Your task to perform on an android device: turn off javascript in the chrome app Image 0: 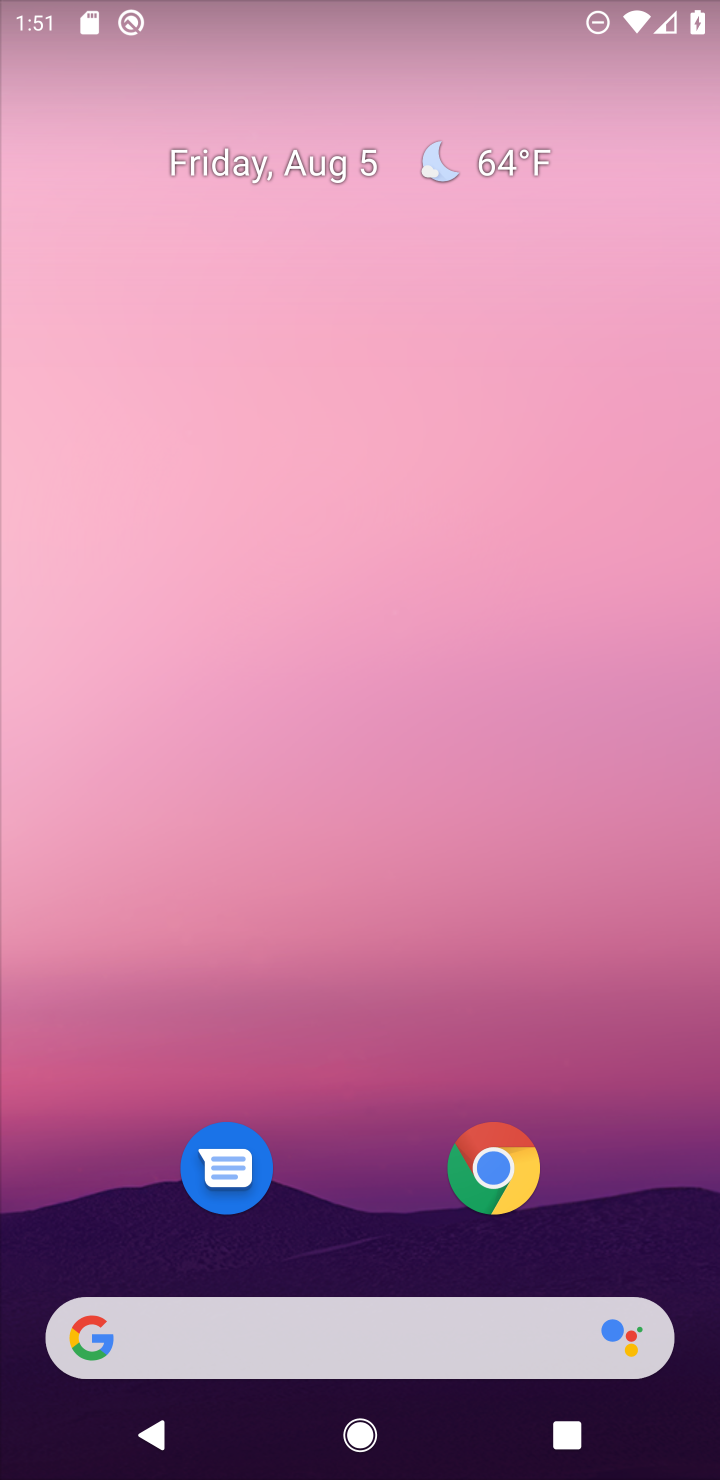
Step 0: drag from (604, 824) to (380, 2)
Your task to perform on an android device: turn off javascript in the chrome app Image 1: 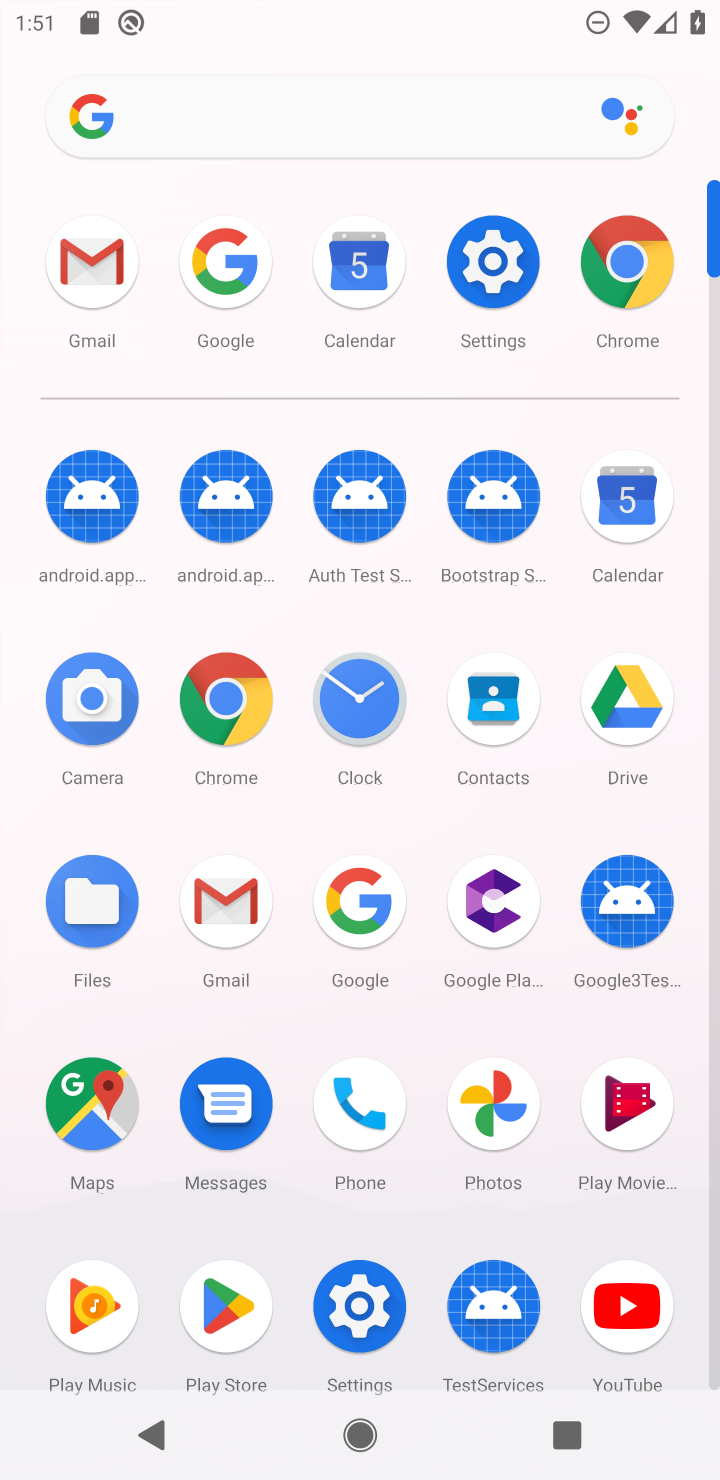
Step 1: click (621, 281)
Your task to perform on an android device: turn off javascript in the chrome app Image 2: 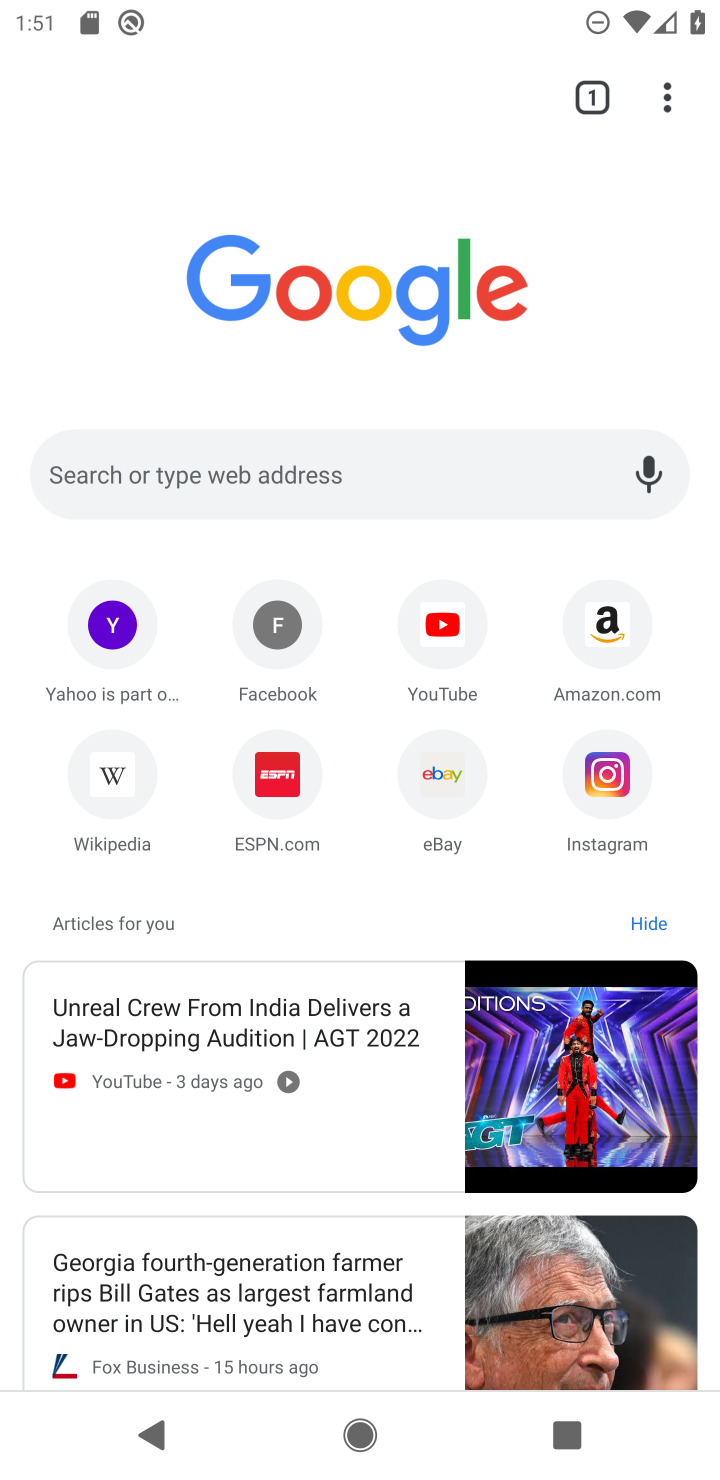
Step 2: click (334, 818)
Your task to perform on an android device: turn off javascript in the chrome app Image 3: 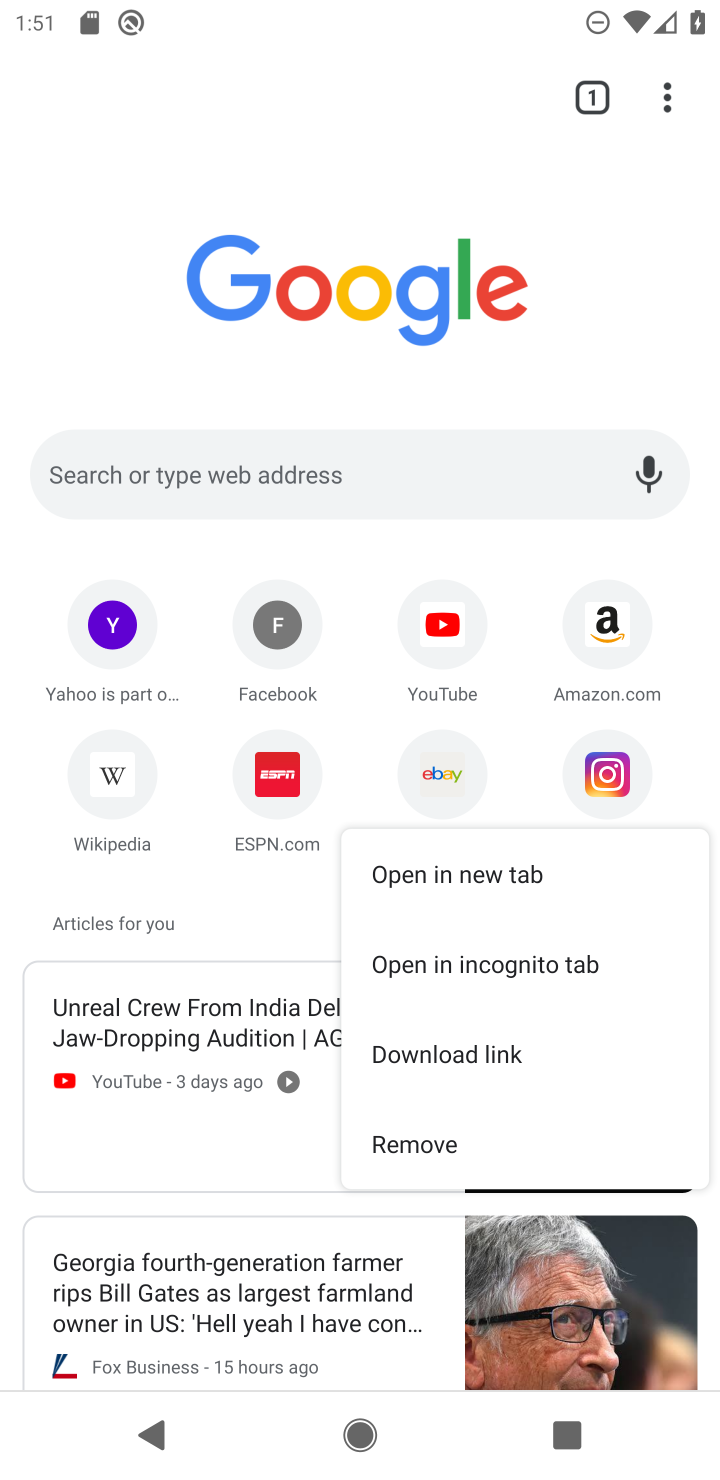
Step 3: click (653, 195)
Your task to perform on an android device: turn off javascript in the chrome app Image 4: 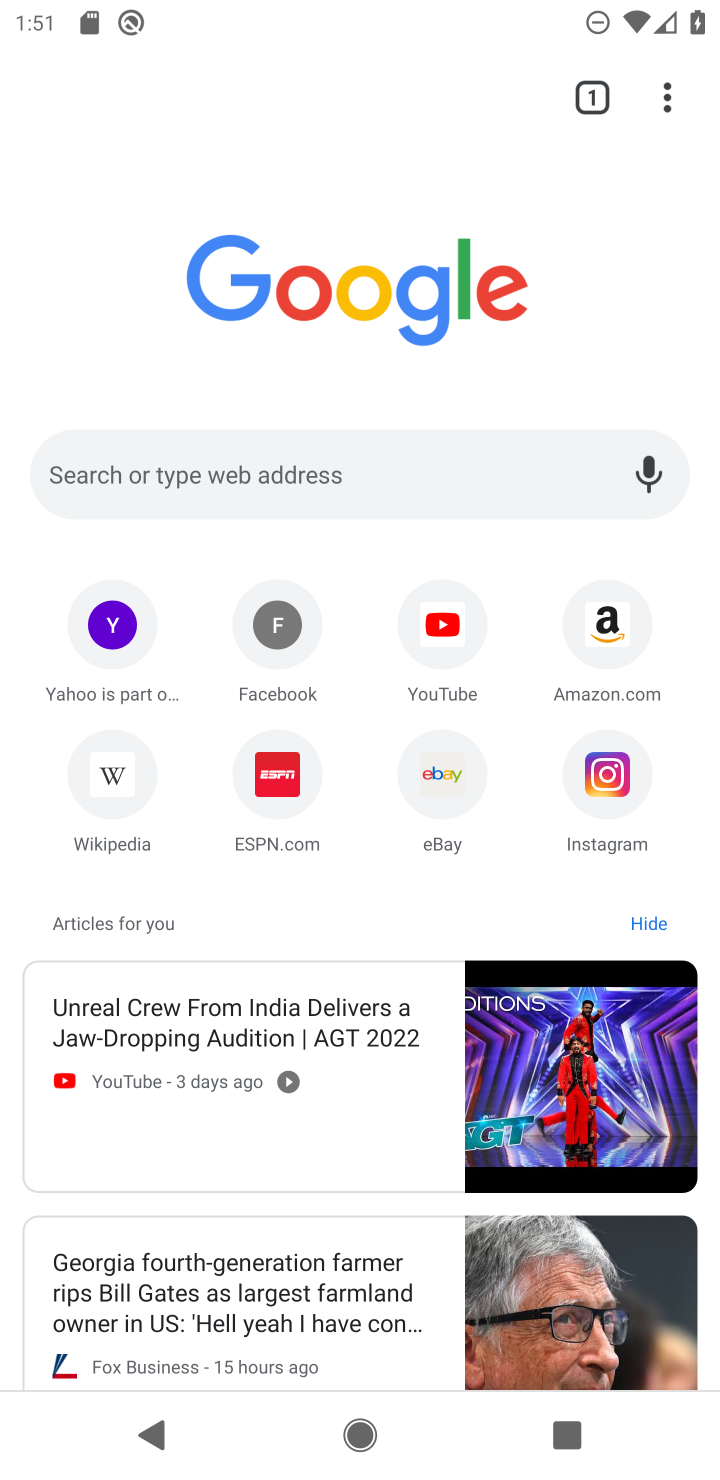
Step 4: click (672, 85)
Your task to perform on an android device: turn off javascript in the chrome app Image 5: 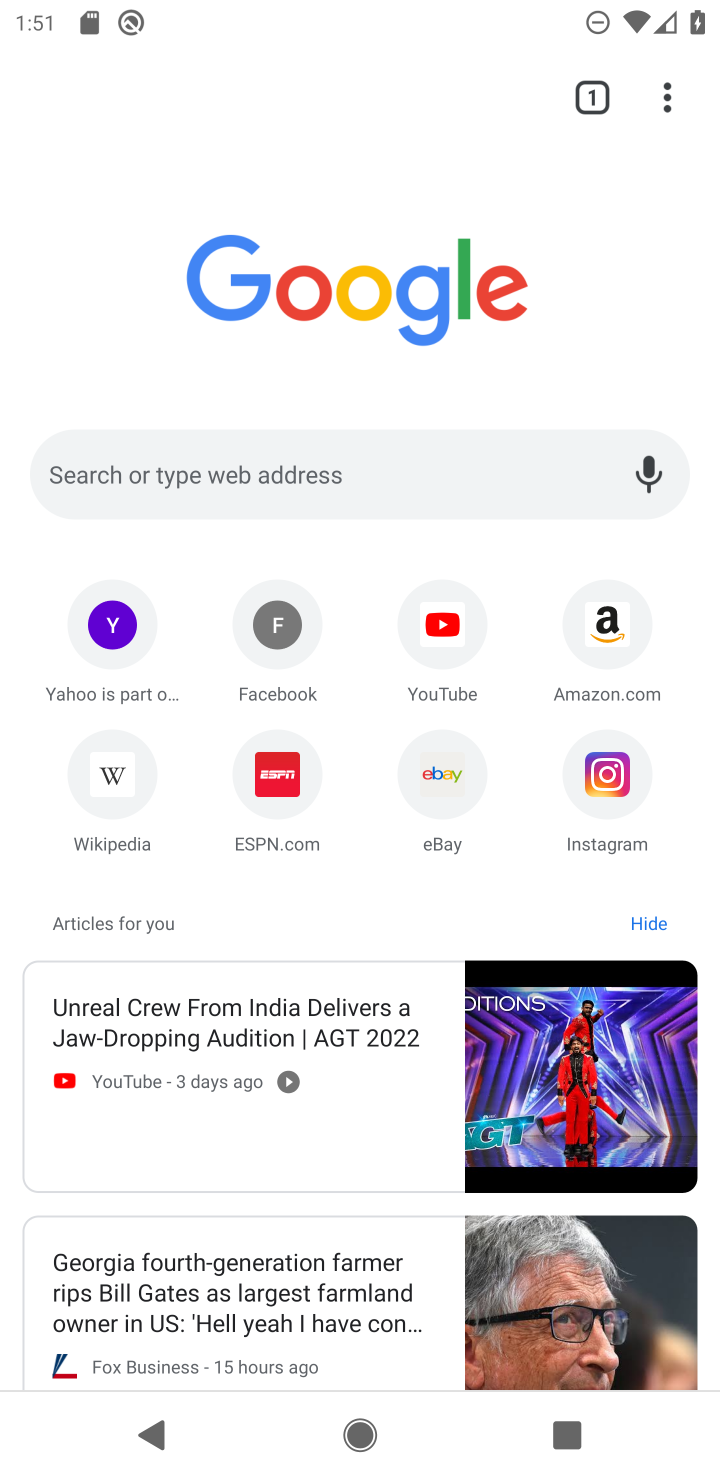
Step 5: click (669, 89)
Your task to perform on an android device: turn off javascript in the chrome app Image 6: 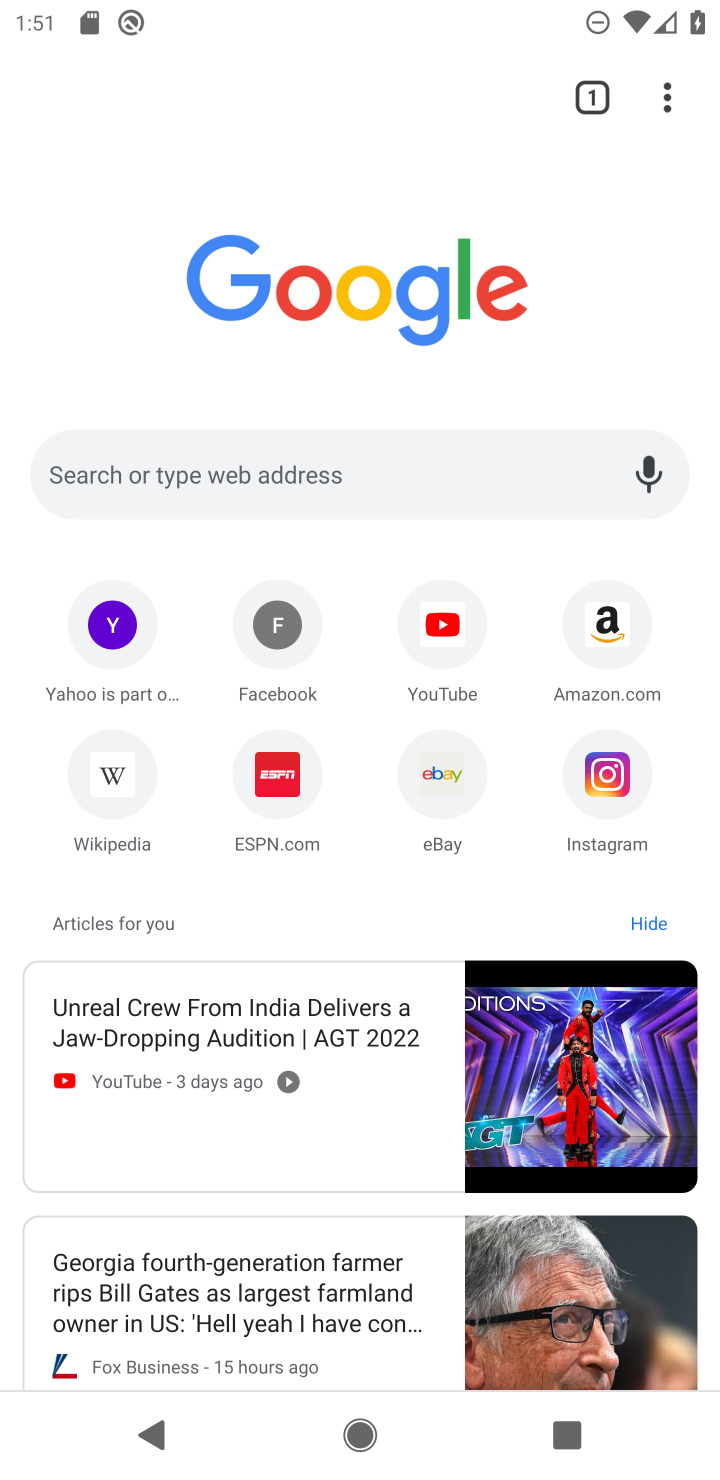
Step 6: click (662, 96)
Your task to perform on an android device: turn off javascript in the chrome app Image 7: 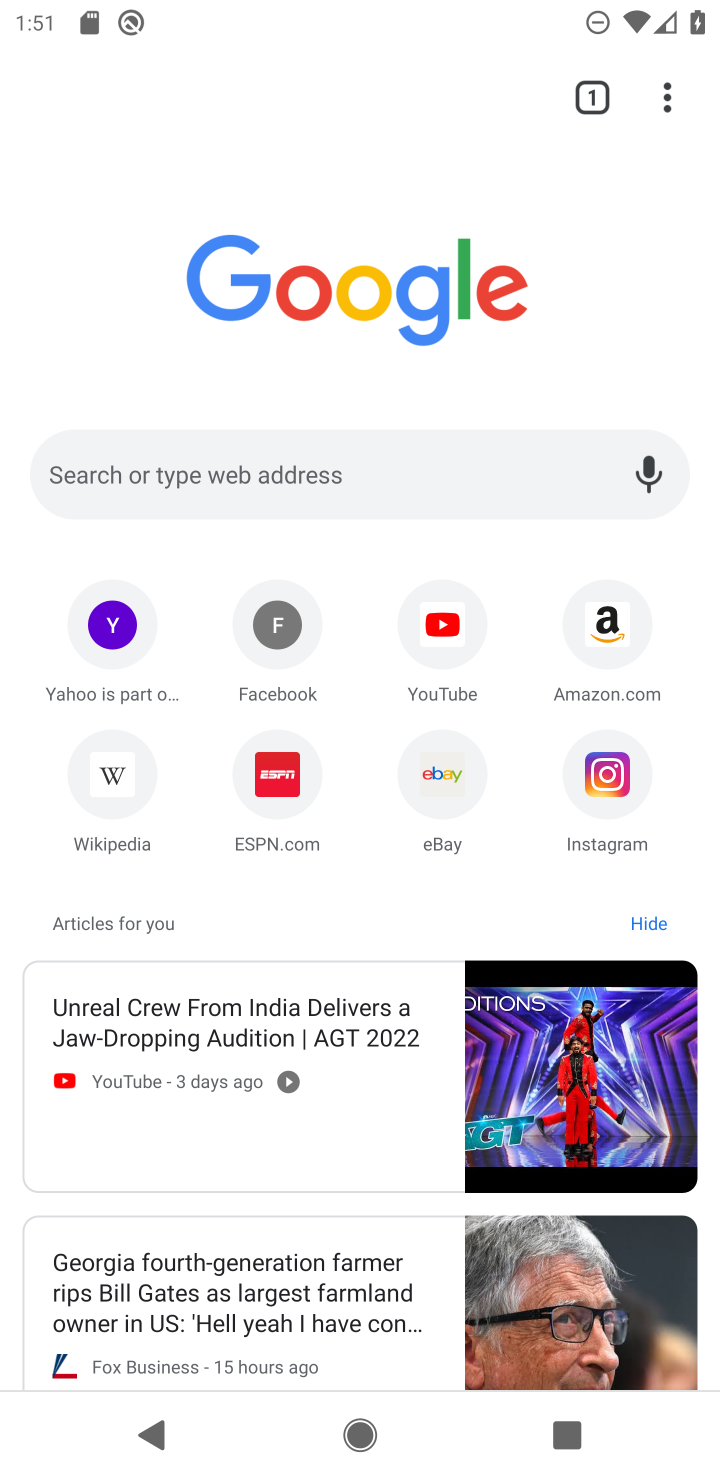
Step 7: task complete